Your task to perform on an android device: turn on wifi Image 0: 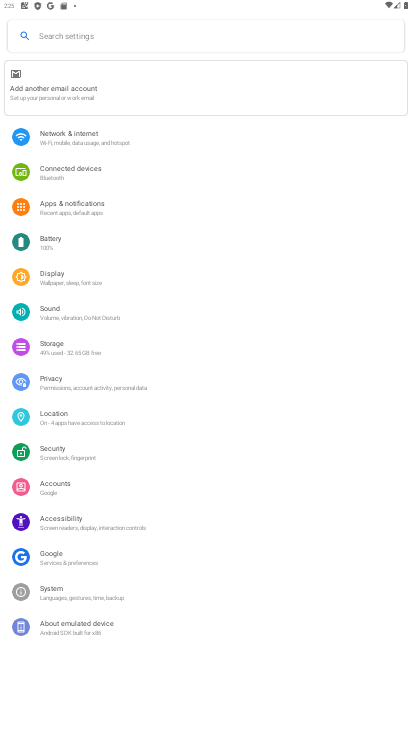
Step 0: press home button
Your task to perform on an android device: turn on wifi Image 1: 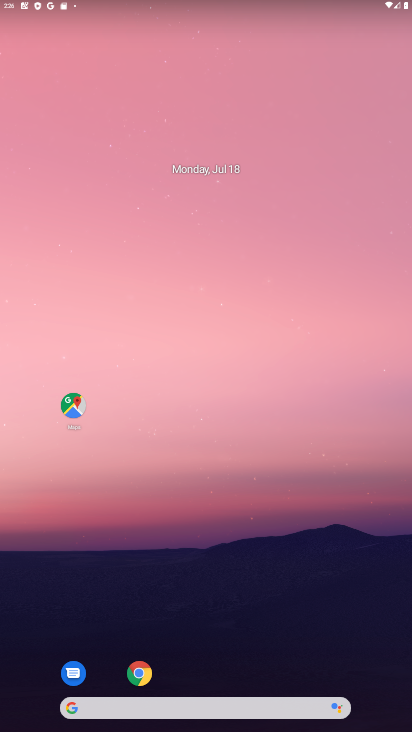
Step 1: drag from (187, 706) to (224, 11)
Your task to perform on an android device: turn on wifi Image 2: 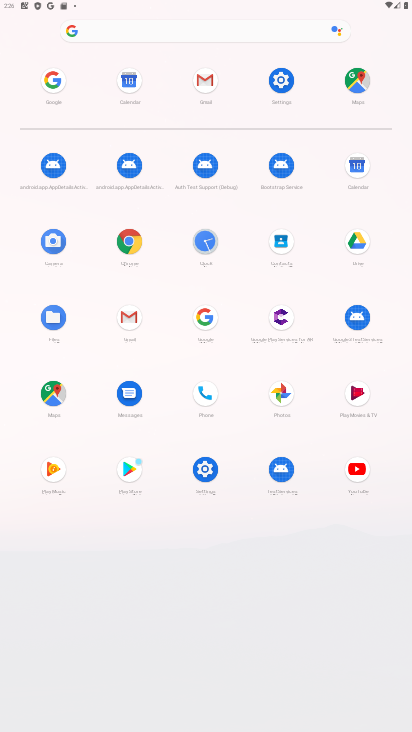
Step 2: click (280, 80)
Your task to perform on an android device: turn on wifi Image 3: 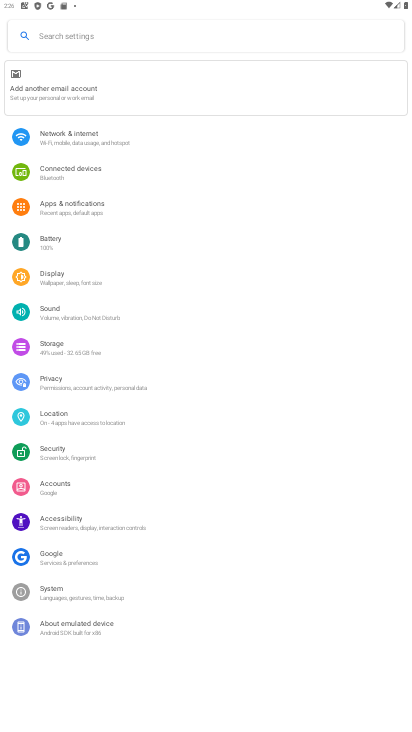
Step 3: click (74, 139)
Your task to perform on an android device: turn on wifi Image 4: 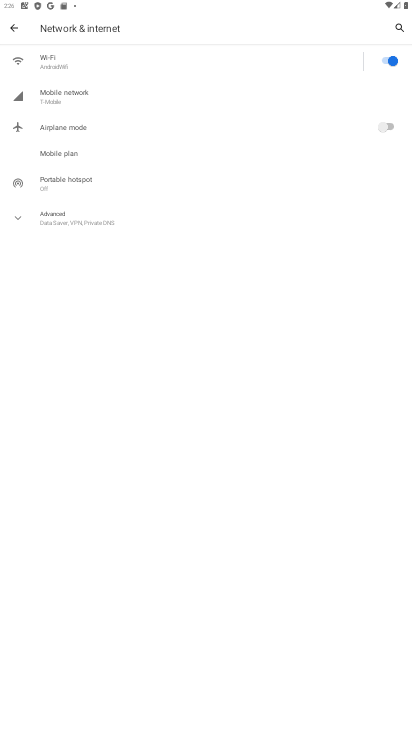
Step 4: task complete